Your task to perform on an android device: change timer sound Image 0: 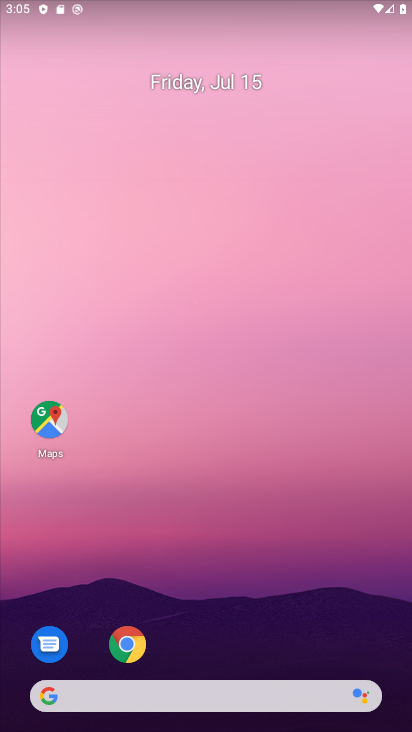
Step 0: drag from (268, 695) to (262, 2)
Your task to perform on an android device: change timer sound Image 1: 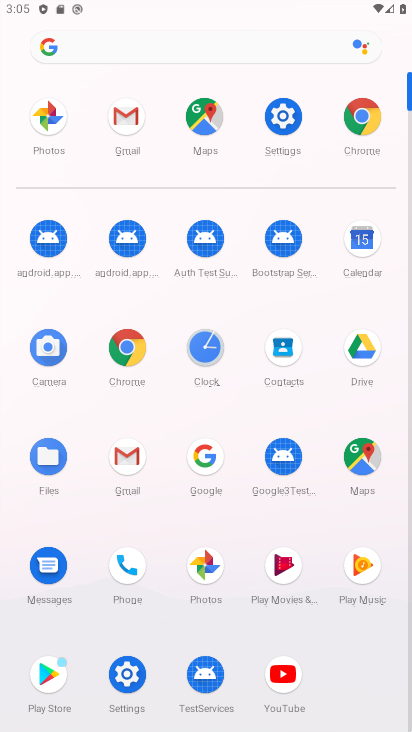
Step 1: click (208, 342)
Your task to perform on an android device: change timer sound Image 2: 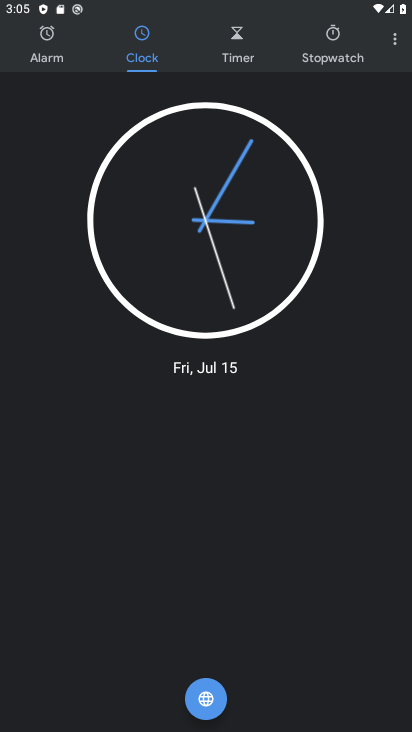
Step 2: click (390, 46)
Your task to perform on an android device: change timer sound Image 3: 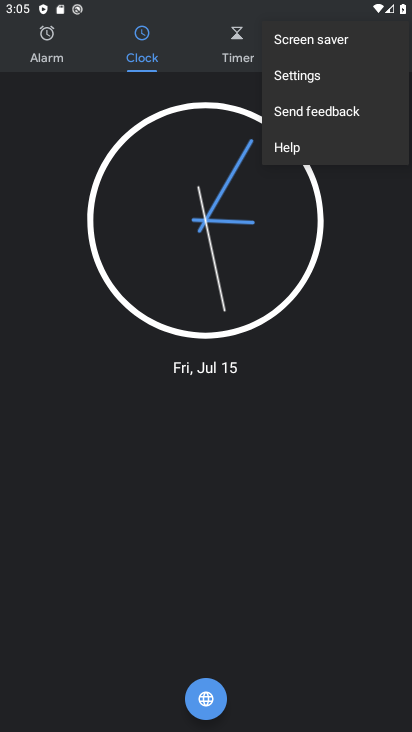
Step 3: click (325, 78)
Your task to perform on an android device: change timer sound Image 4: 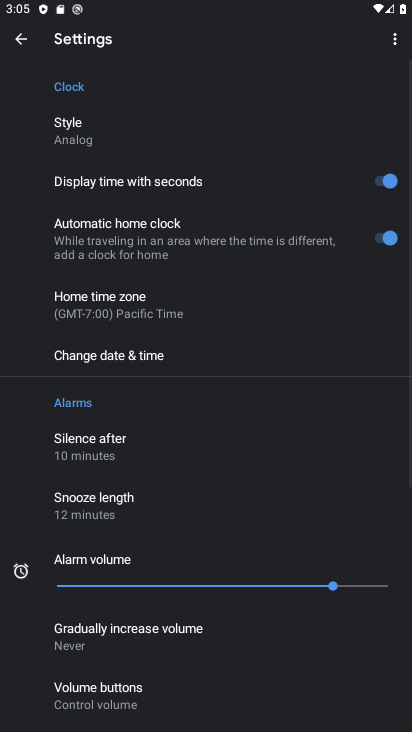
Step 4: drag from (177, 575) to (190, 95)
Your task to perform on an android device: change timer sound Image 5: 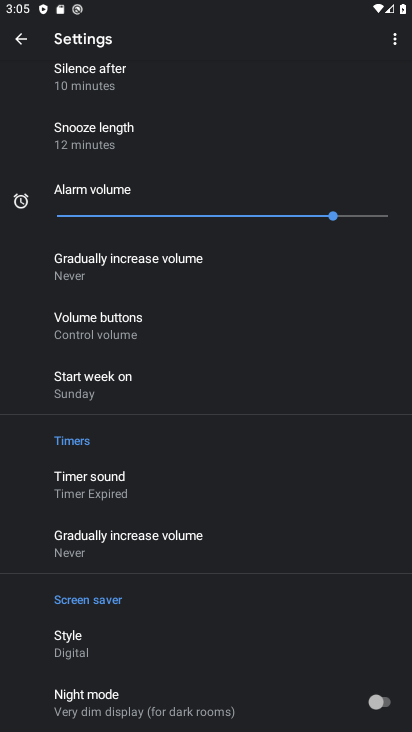
Step 5: click (142, 482)
Your task to perform on an android device: change timer sound Image 6: 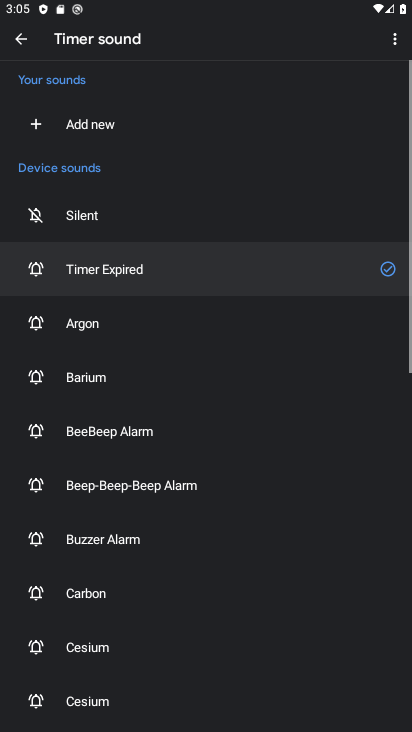
Step 6: click (135, 332)
Your task to perform on an android device: change timer sound Image 7: 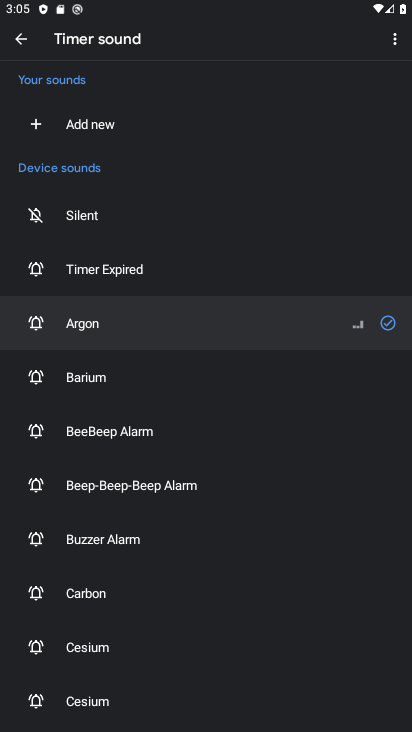
Step 7: task complete